Your task to perform on an android device: Open Google Maps and go to "Timeline" Image 0: 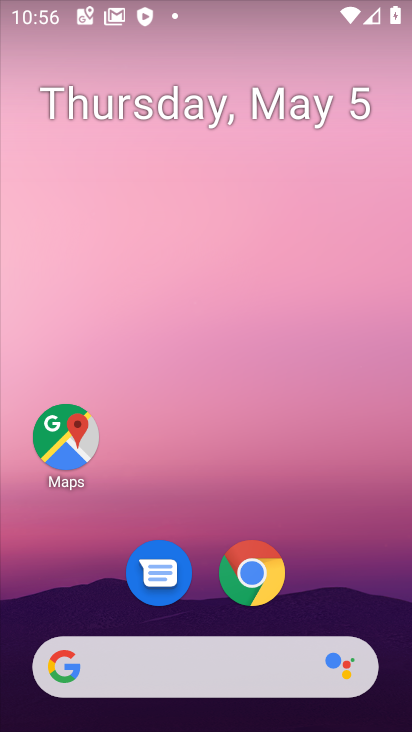
Step 0: drag from (318, 577) to (300, 291)
Your task to perform on an android device: Open Google Maps and go to "Timeline" Image 1: 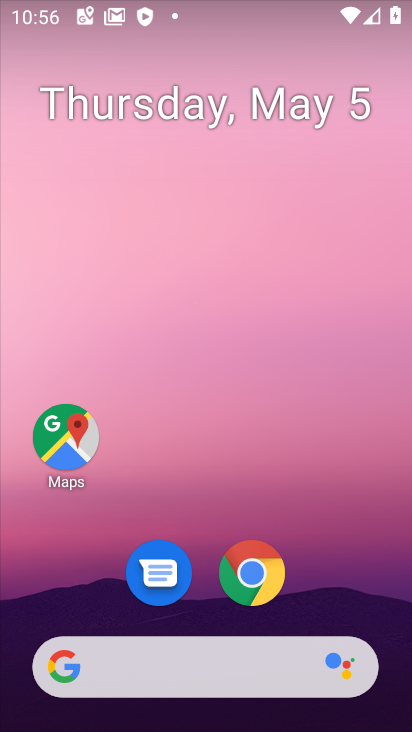
Step 1: drag from (341, 577) to (324, 187)
Your task to perform on an android device: Open Google Maps and go to "Timeline" Image 2: 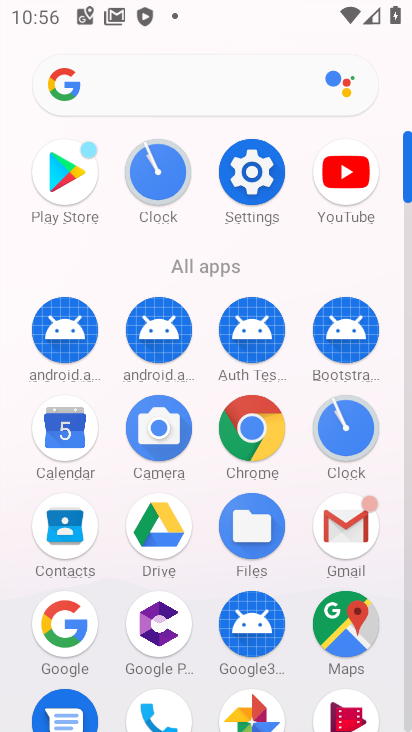
Step 2: click (355, 632)
Your task to perform on an android device: Open Google Maps and go to "Timeline" Image 3: 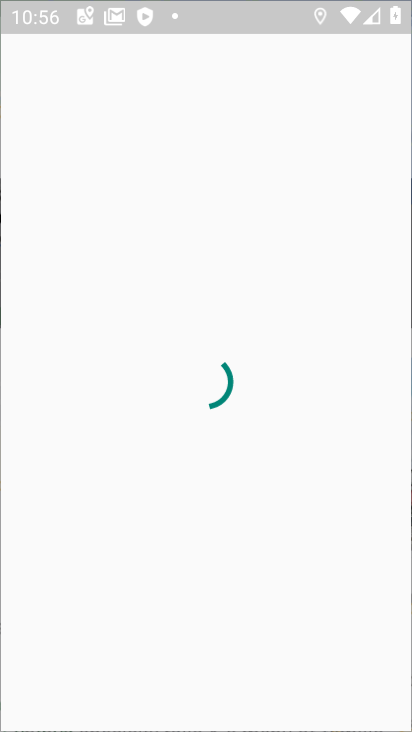
Step 3: click (295, 75)
Your task to perform on an android device: Open Google Maps and go to "Timeline" Image 4: 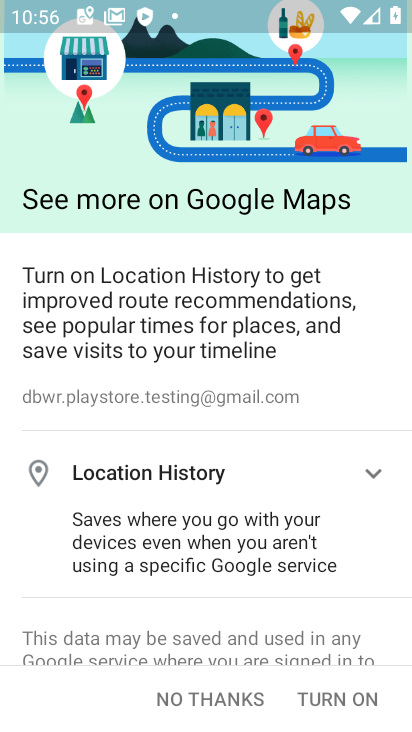
Step 4: click (212, 699)
Your task to perform on an android device: Open Google Maps and go to "Timeline" Image 5: 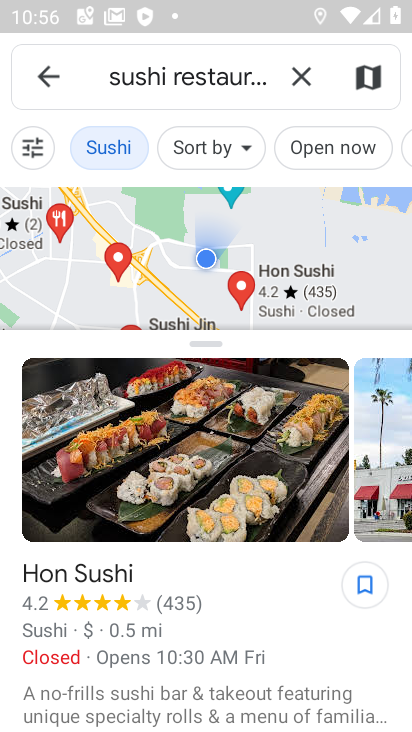
Step 5: click (299, 74)
Your task to perform on an android device: Open Google Maps and go to "Timeline" Image 6: 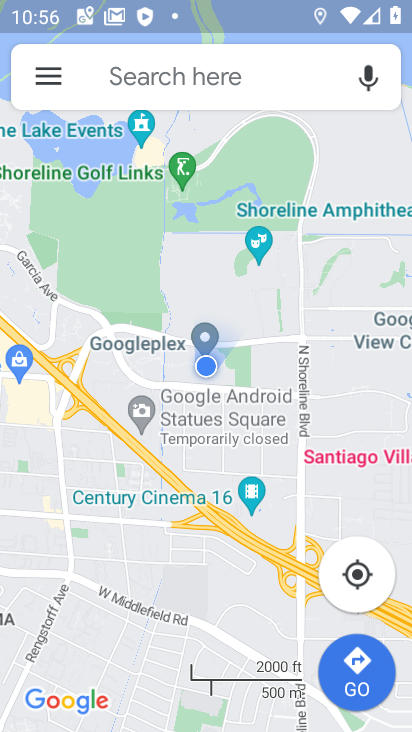
Step 6: click (38, 73)
Your task to perform on an android device: Open Google Maps and go to "Timeline" Image 7: 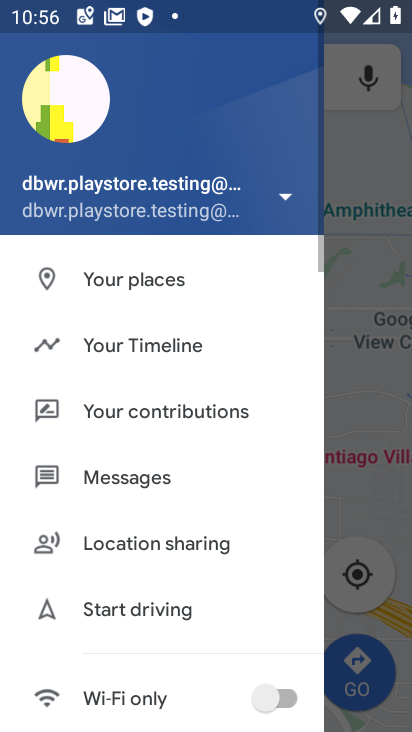
Step 7: click (125, 343)
Your task to perform on an android device: Open Google Maps and go to "Timeline" Image 8: 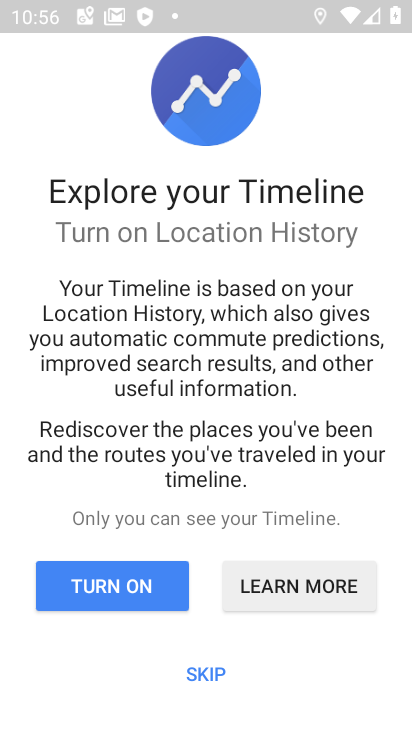
Step 8: click (214, 673)
Your task to perform on an android device: Open Google Maps and go to "Timeline" Image 9: 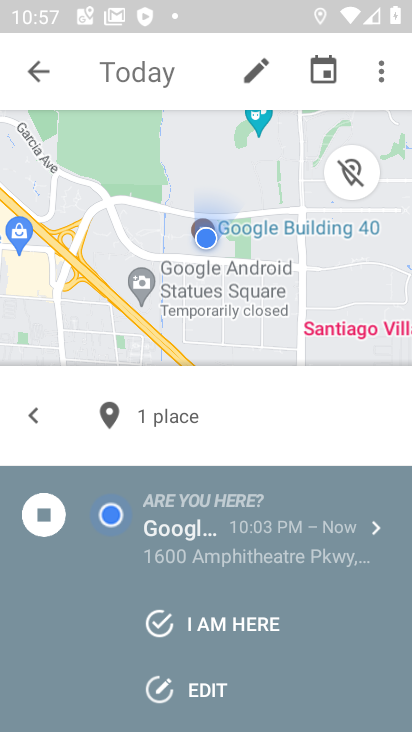
Step 9: task complete